Your task to perform on an android device: open app "Google Home" Image 0: 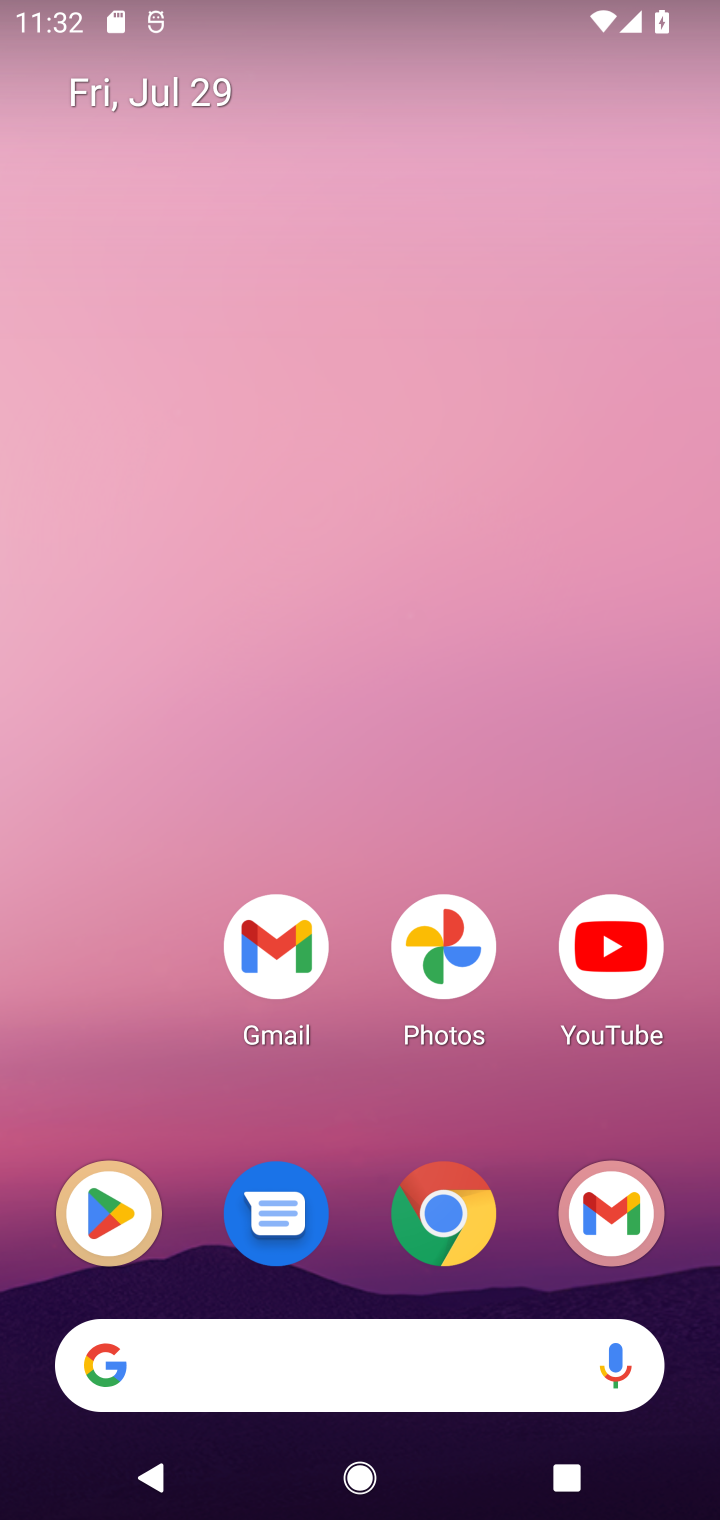
Step 0: drag from (423, 1456) to (423, 355)
Your task to perform on an android device: open app "Google Home" Image 1: 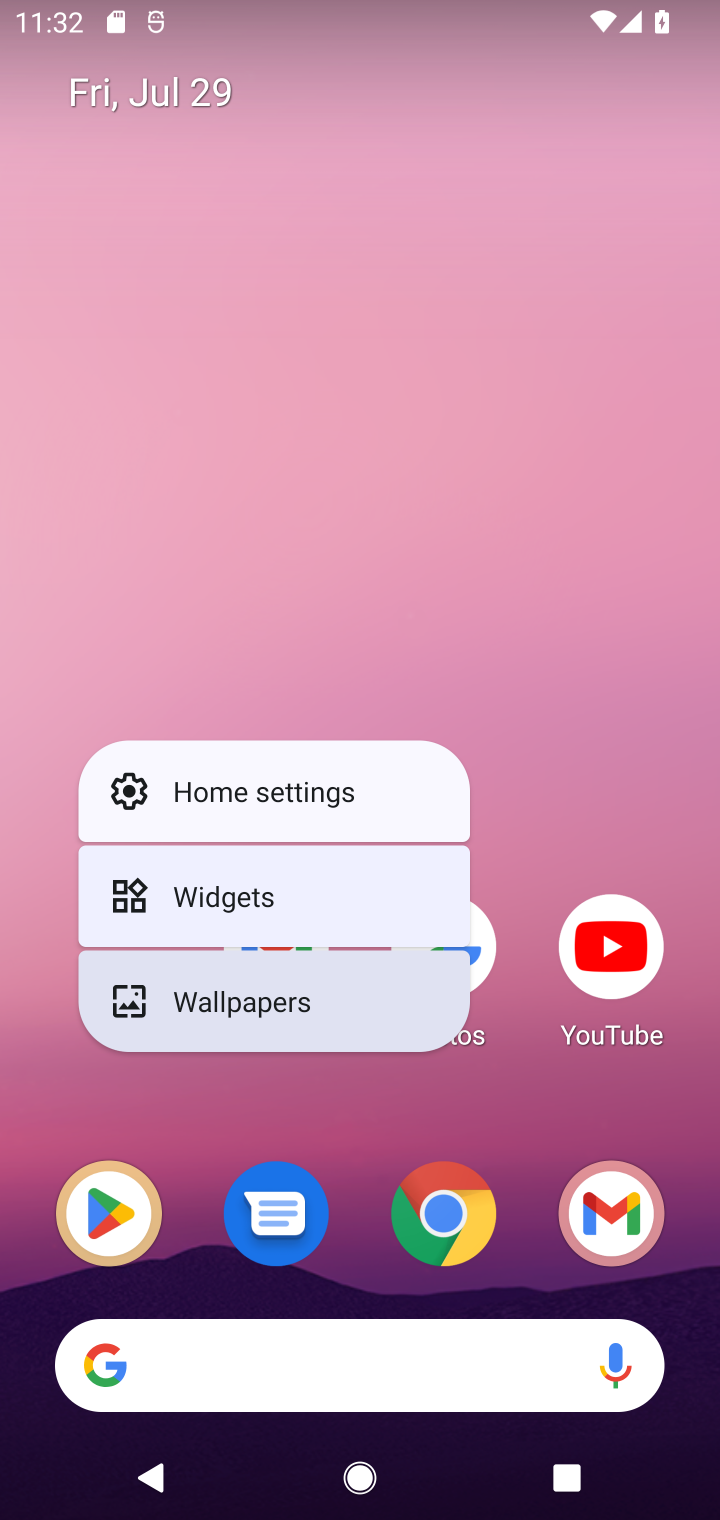
Step 1: click (361, 595)
Your task to perform on an android device: open app "Google Home" Image 2: 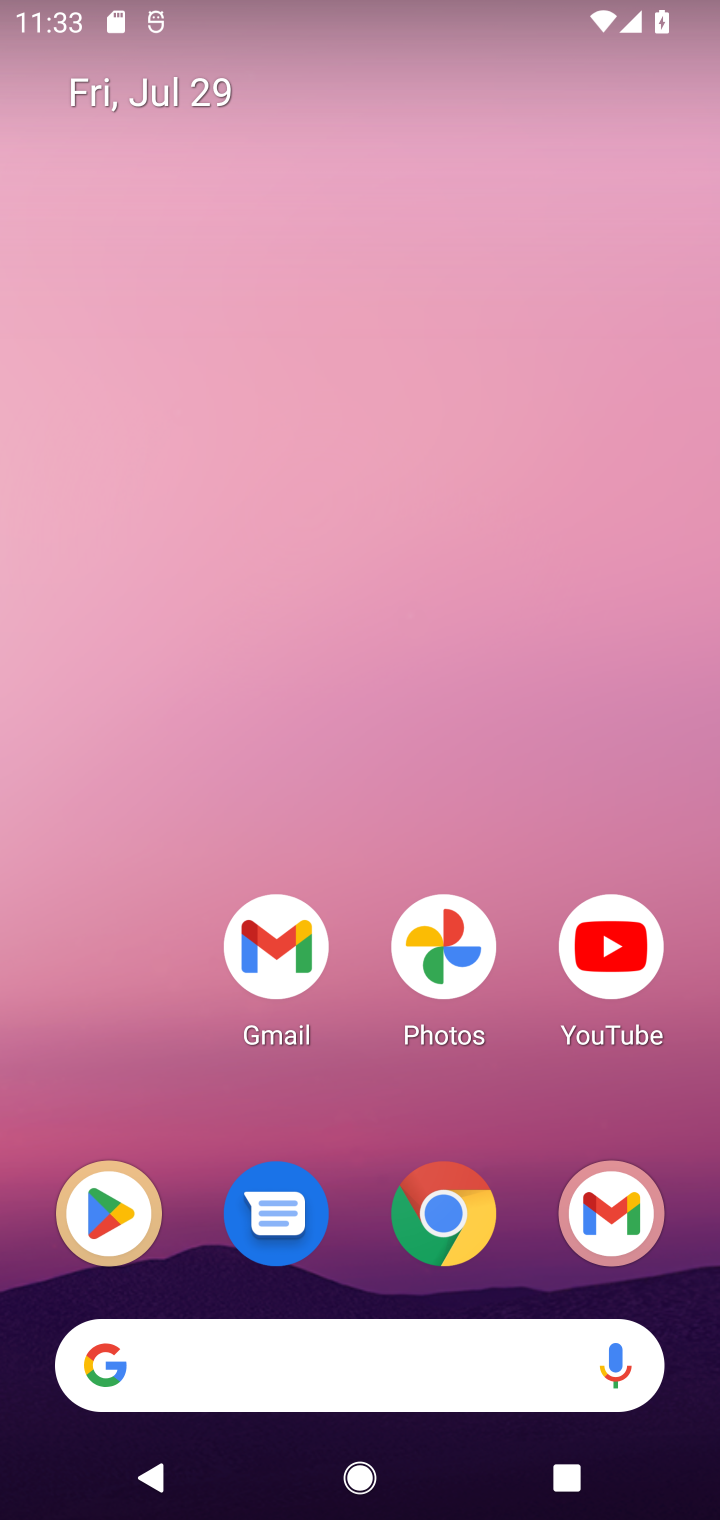
Step 2: drag from (426, 1246) to (387, 429)
Your task to perform on an android device: open app "Google Home" Image 3: 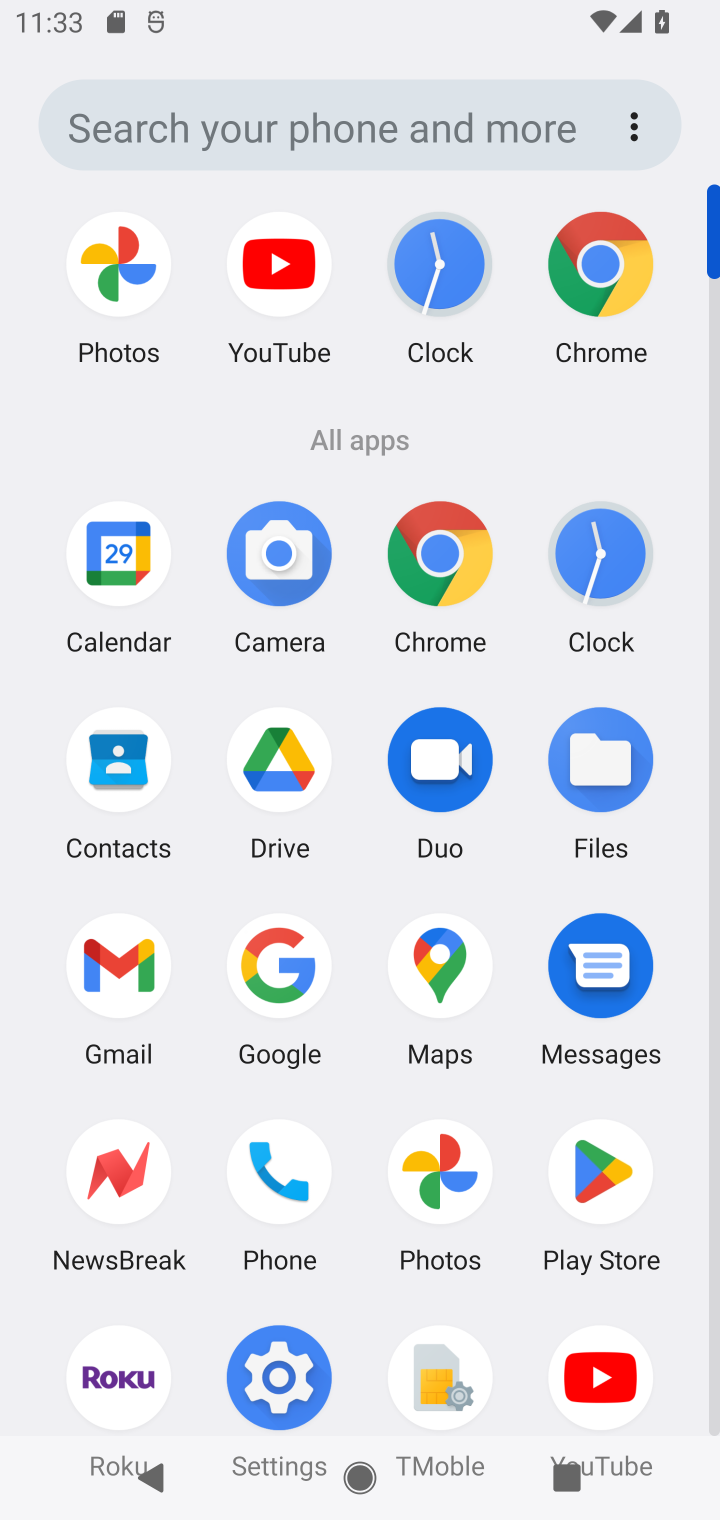
Step 3: click (289, 971)
Your task to perform on an android device: open app "Google Home" Image 4: 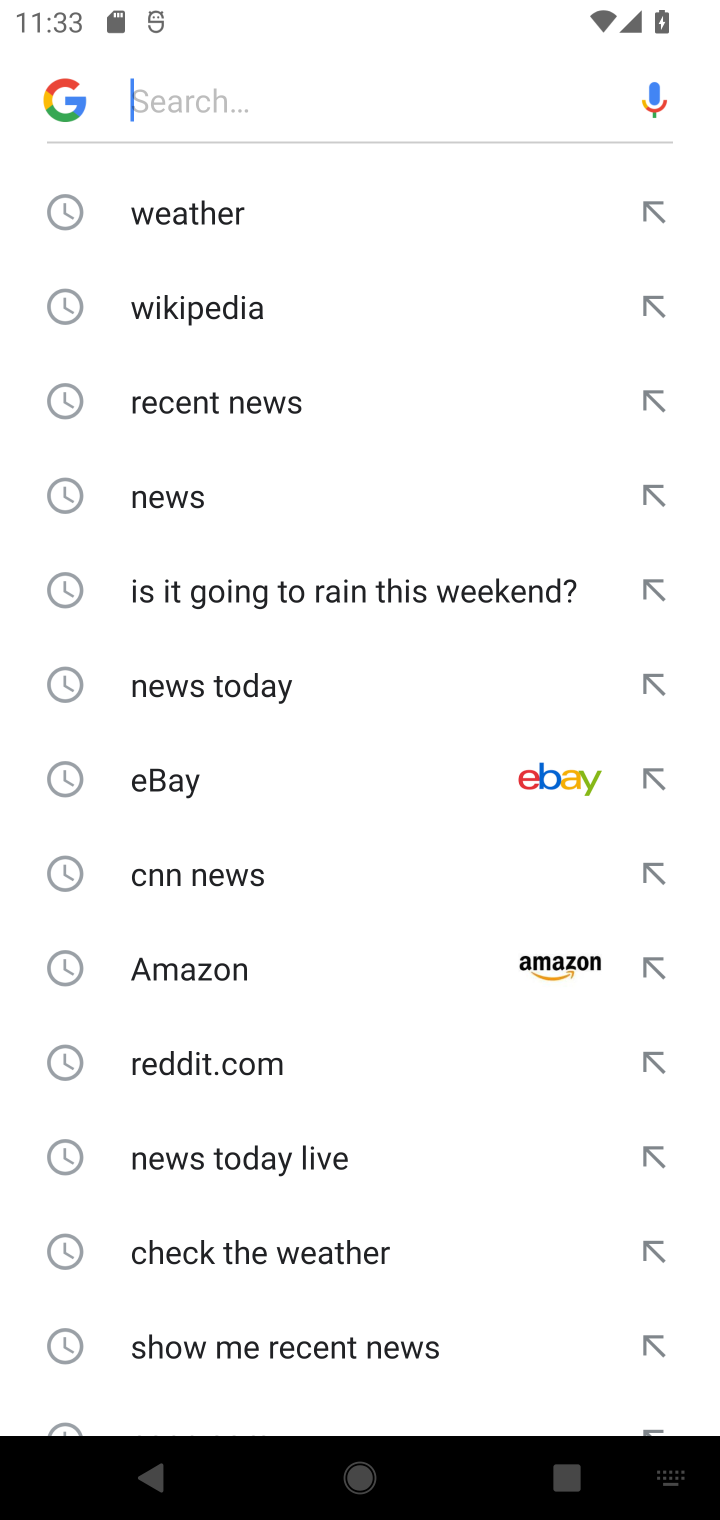
Step 4: task complete